Your task to perform on an android device: add a label to a message in the gmail app Image 0: 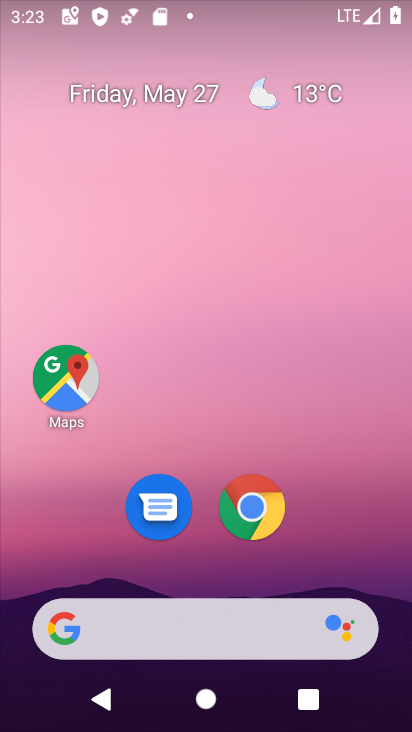
Step 0: drag from (62, 597) to (214, 115)
Your task to perform on an android device: add a label to a message in the gmail app Image 1: 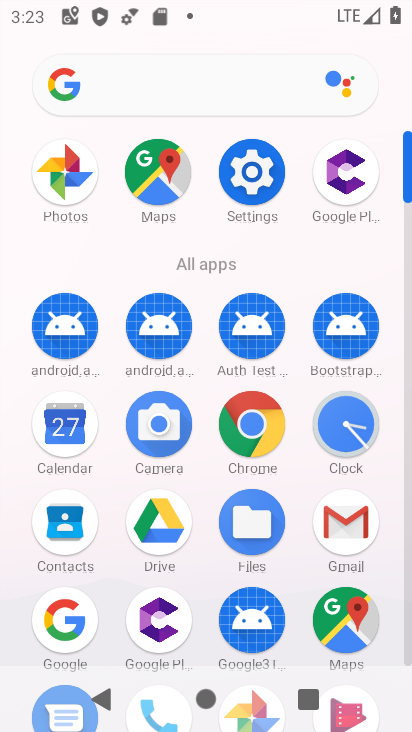
Step 1: drag from (194, 502) to (293, 234)
Your task to perform on an android device: add a label to a message in the gmail app Image 2: 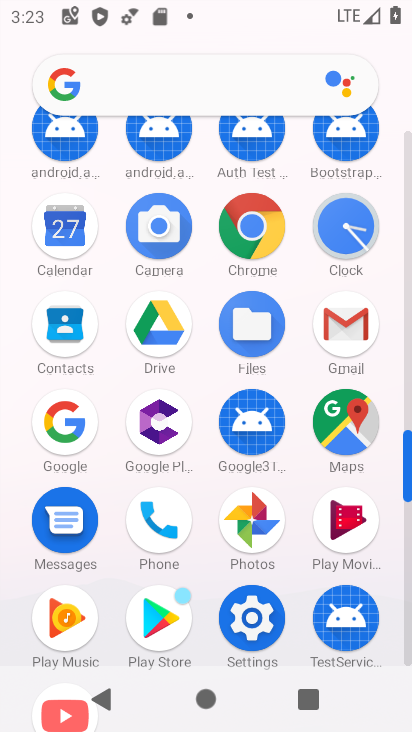
Step 2: click (342, 333)
Your task to perform on an android device: add a label to a message in the gmail app Image 3: 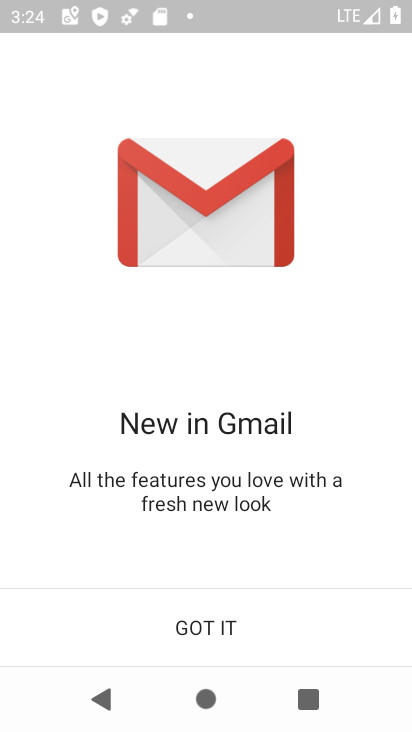
Step 3: click (258, 621)
Your task to perform on an android device: add a label to a message in the gmail app Image 4: 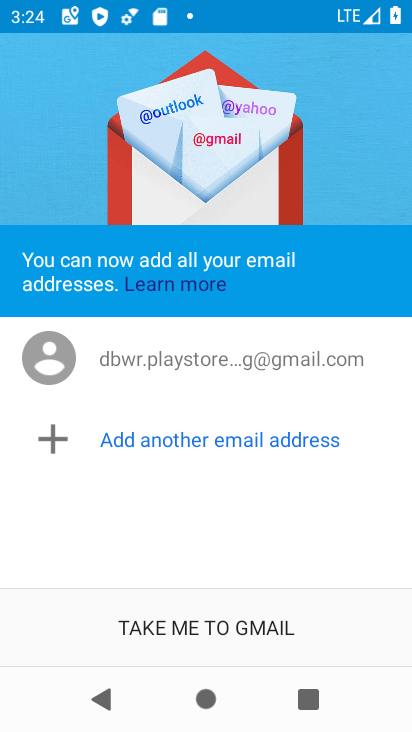
Step 4: click (258, 620)
Your task to perform on an android device: add a label to a message in the gmail app Image 5: 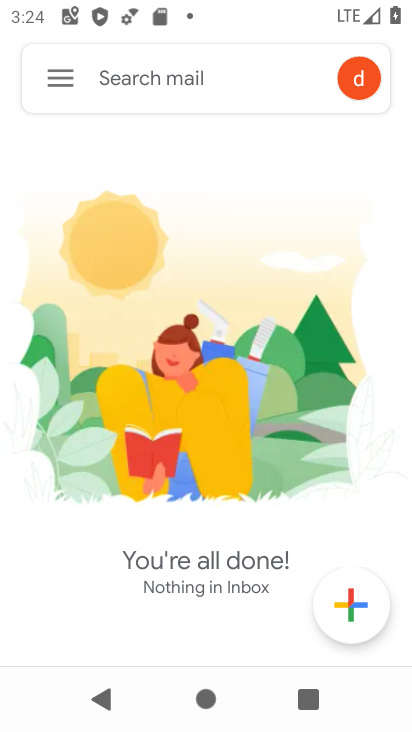
Step 5: click (90, 90)
Your task to perform on an android device: add a label to a message in the gmail app Image 6: 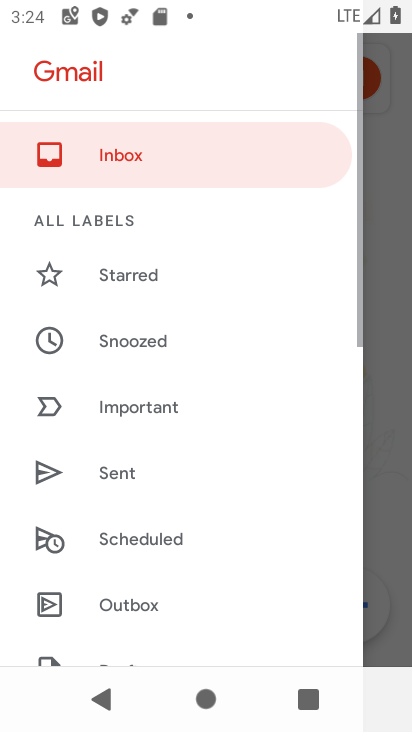
Step 6: drag from (109, 591) to (232, 206)
Your task to perform on an android device: add a label to a message in the gmail app Image 7: 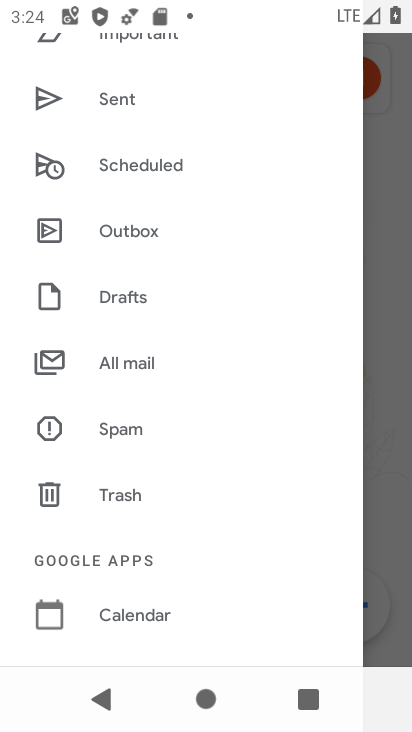
Step 7: click (167, 363)
Your task to perform on an android device: add a label to a message in the gmail app Image 8: 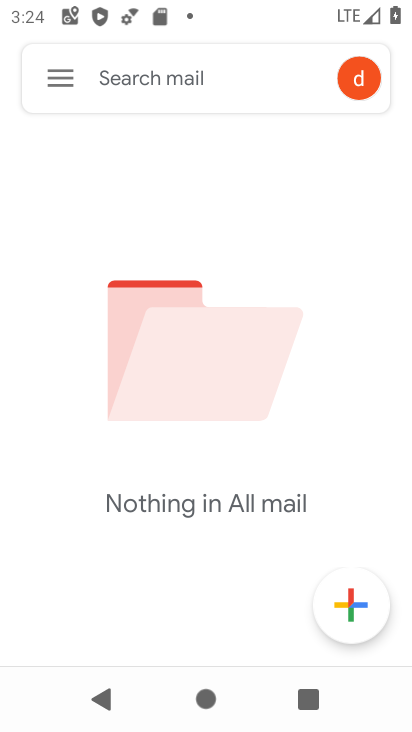
Step 8: task complete